Your task to perform on an android device: Open Google Chrome and open the bookmarks view Image 0: 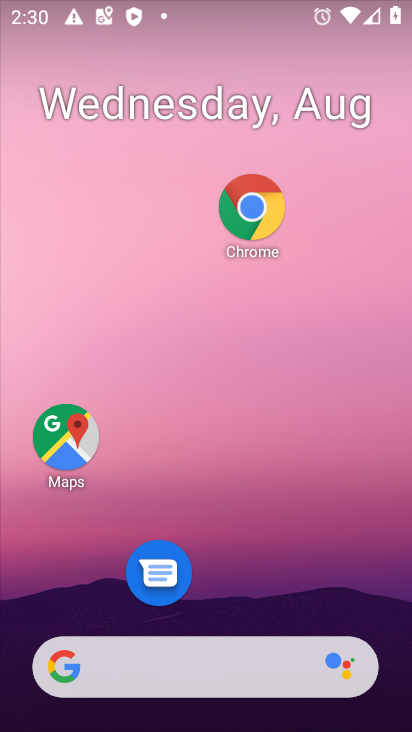
Step 0: drag from (215, 670) to (280, 159)
Your task to perform on an android device: Open Google Chrome and open the bookmarks view Image 1: 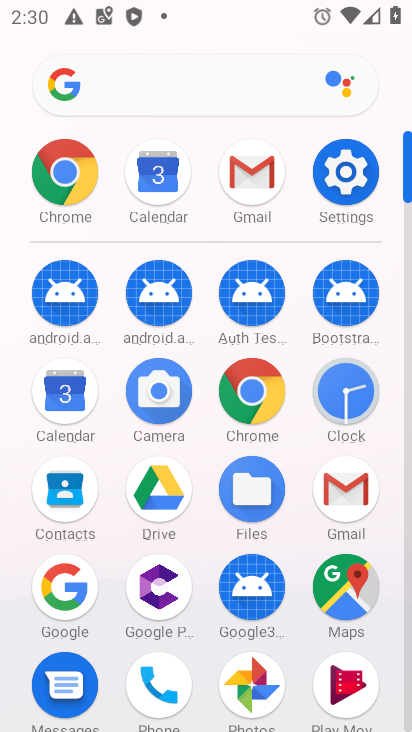
Step 1: click (68, 199)
Your task to perform on an android device: Open Google Chrome and open the bookmarks view Image 2: 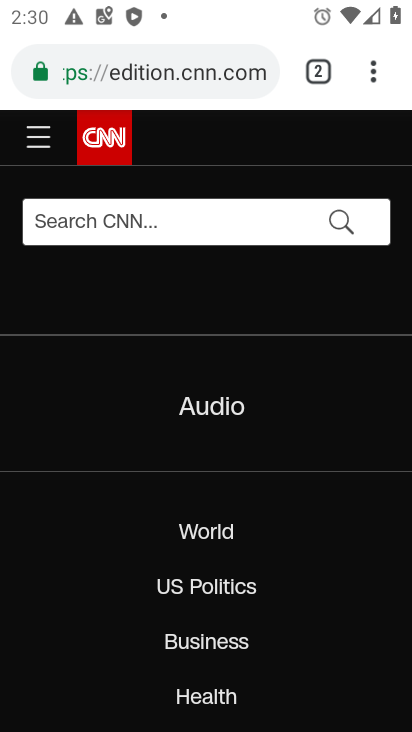
Step 2: click (371, 74)
Your task to perform on an android device: Open Google Chrome and open the bookmarks view Image 3: 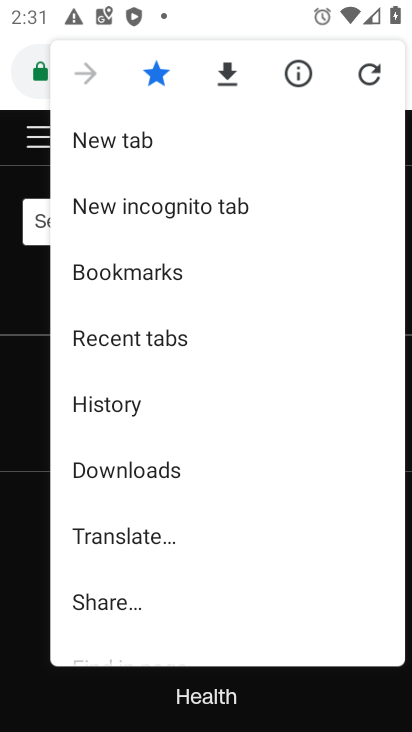
Step 3: click (147, 274)
Your task to perform on an android device: Open Google Chrome and open the bookmarks view Image 4: 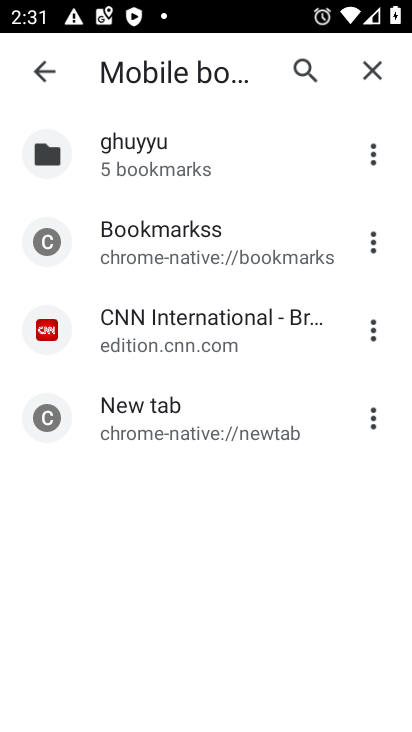
Step 4: task complete